Your task to perform on an android device: toggle translation in the chrome app Image 0: 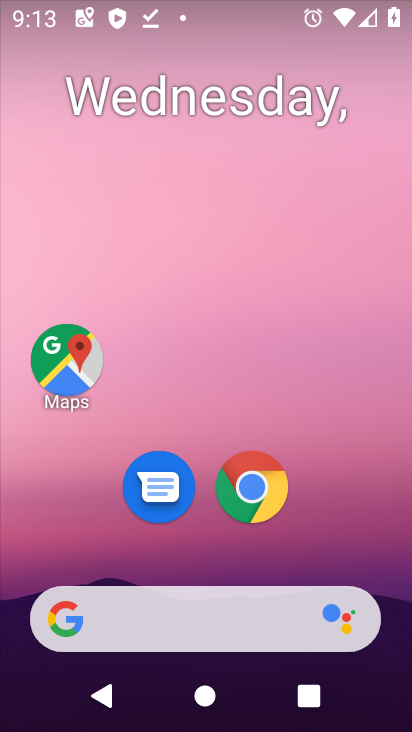
Step 0: drag from (218, 578) to (178, 298)
Your task to perform on an android device: toggle translation in the chrome app Image 1: 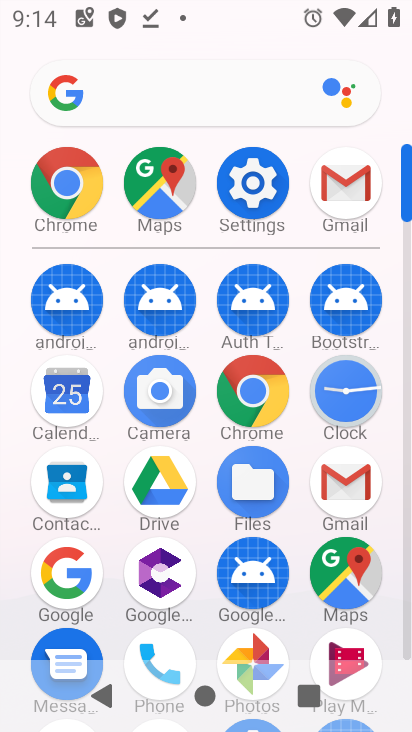
Step 1: click (78, 166)
Your task to perform on an android device: toggle translation in the chrome app Image 2: 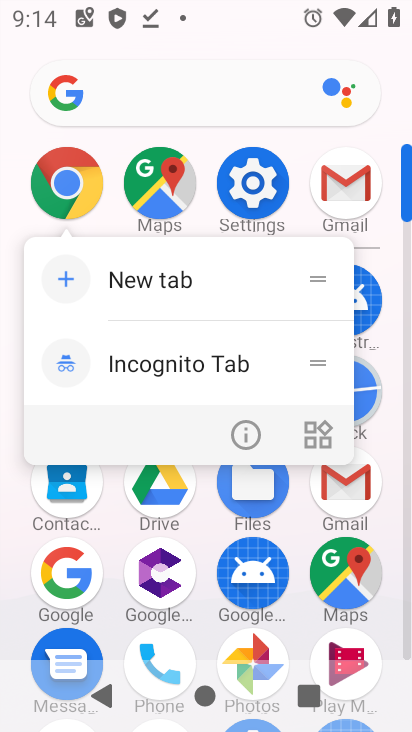
Step 2: click (53, 157)
Your task to perform on an android device: toggle translation in the chrome app Image 3: 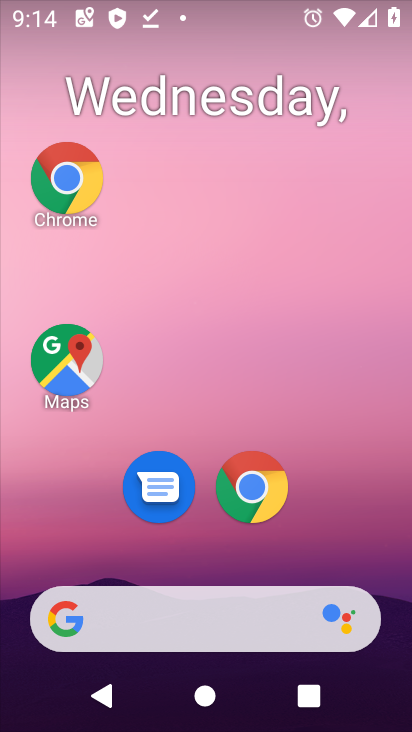
Step 3: click (251, 493)
Your task to perform on an android device: toggle translation in the chrome app Image 4: 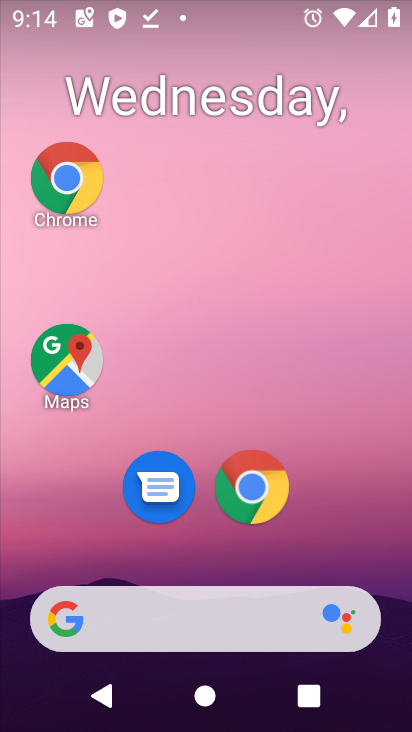
Step 4: click (256, 492)
Your task to perform on an android device: toggle translation in the chrome app Image 5: 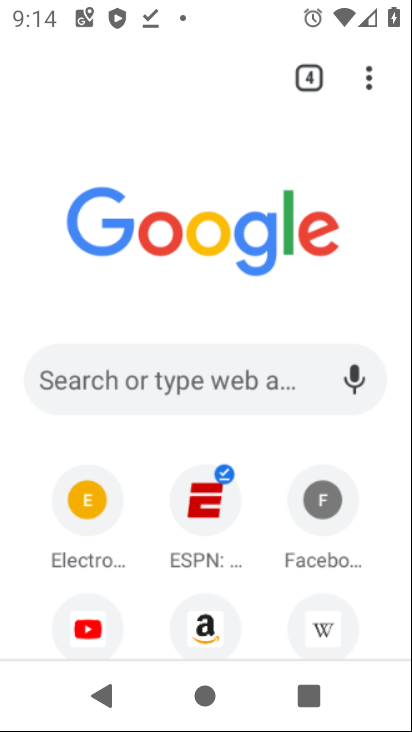
Step 5: click (264, 473)
Your task to perform on an android device: toggle translation in the chrome app Image 6: 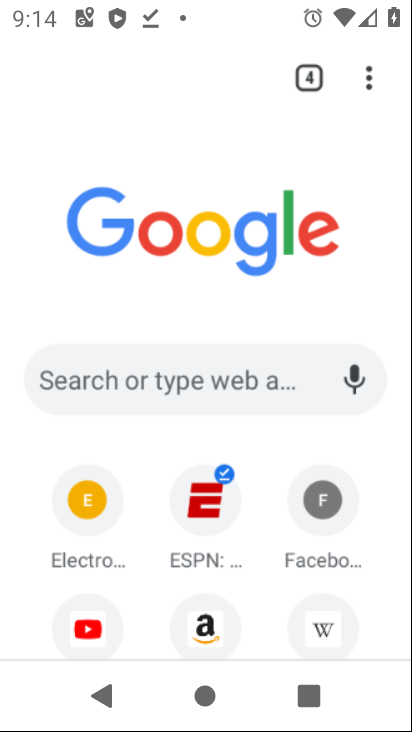
Step 6: click (264, 473)
Your task to perform on an android device: toggle translation in the chrome app Image 7: 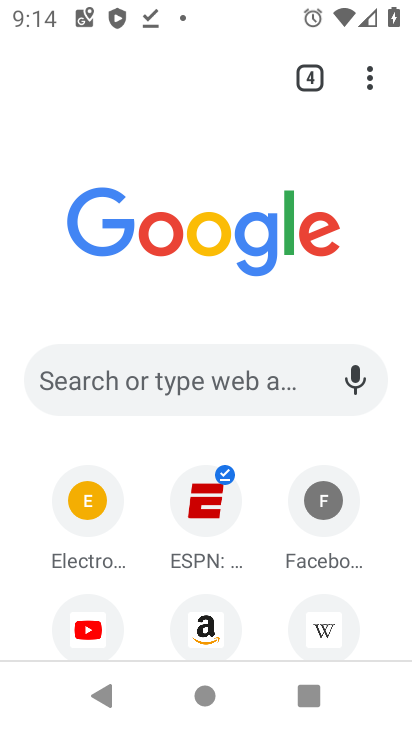
Step 7: drag from (367, 78) to (87, 542)
Your task to perform on an android device: toggle translation in the chrome app Image 8: 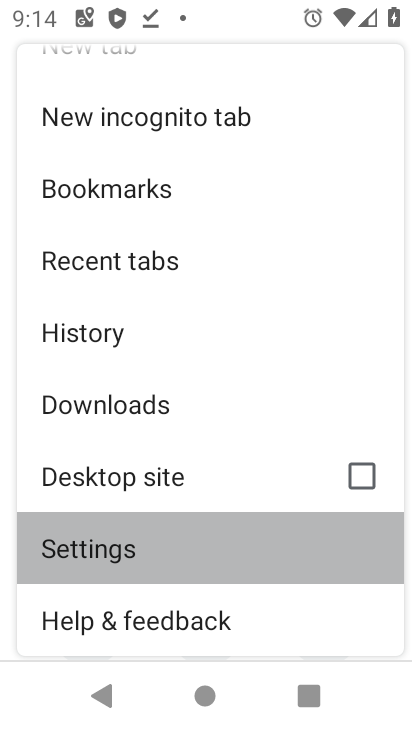
Step 8: click (87, 541)
Your task to perform on an android device: toggle translation in the chrome app Image 9: 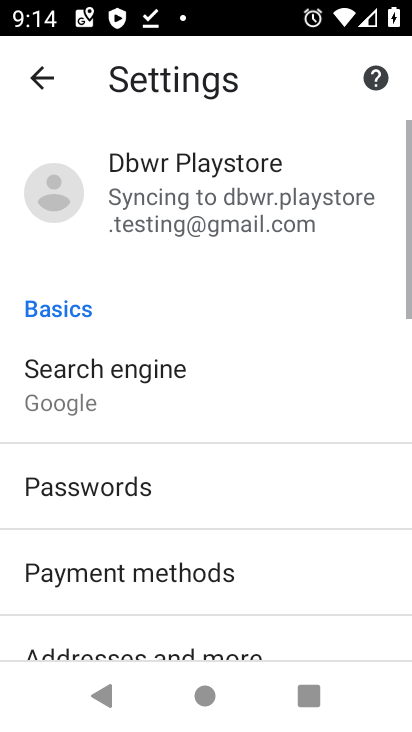
Step 9: drag from (191, 501) to (163, 183)
Your task to perform on an android device: toggle translation in the chrome app Image 10: 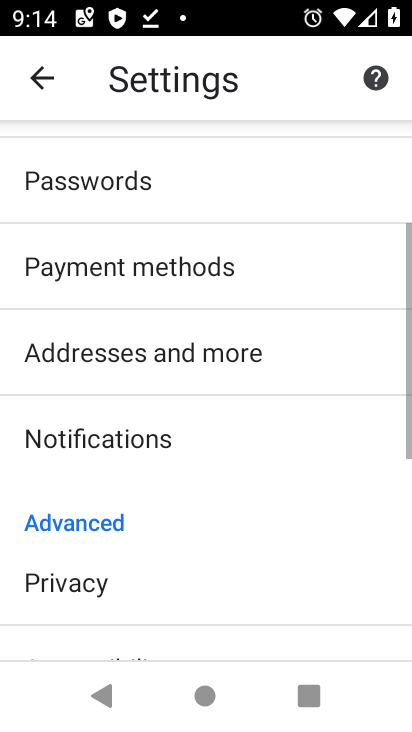
Step 10: drag from (244, 509) to (161, 104)
Your task to perform on an android device: toggle translation in the chrome app Image 11: 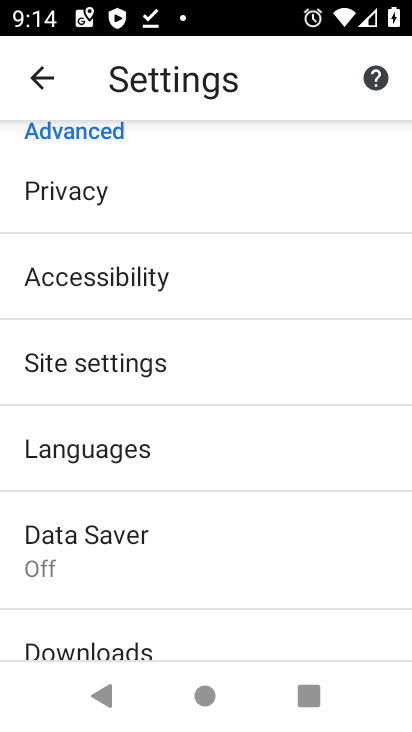
Step 11: click (69, 446)
Your task to perform on an android device: toggle translation in the chrome app Image 12: 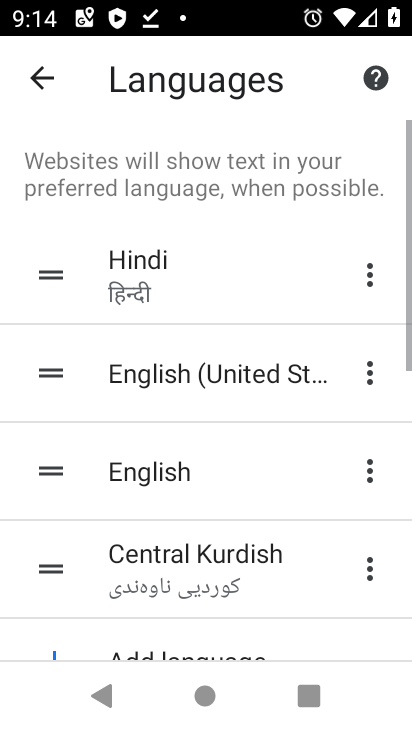
Step 12: drag from (254, 553) to (236, 284)
Your task to perform on an android device: toggle translation in the chrome app Image 13: 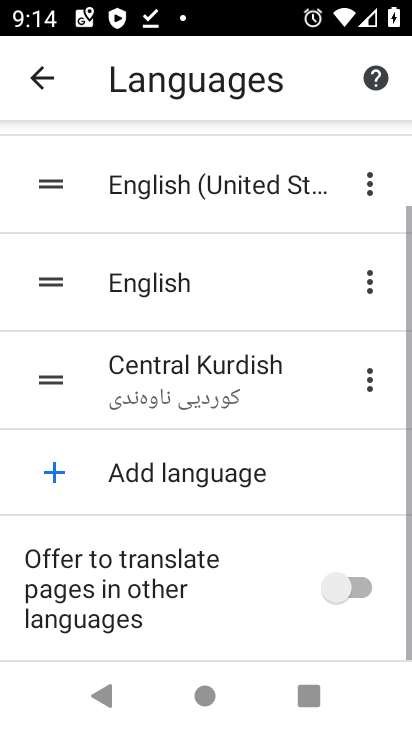
Step 13: drag from (275, 531) to (288, 145)
Your task to perform on an android device: toggle translation in the chrome app Image 14: 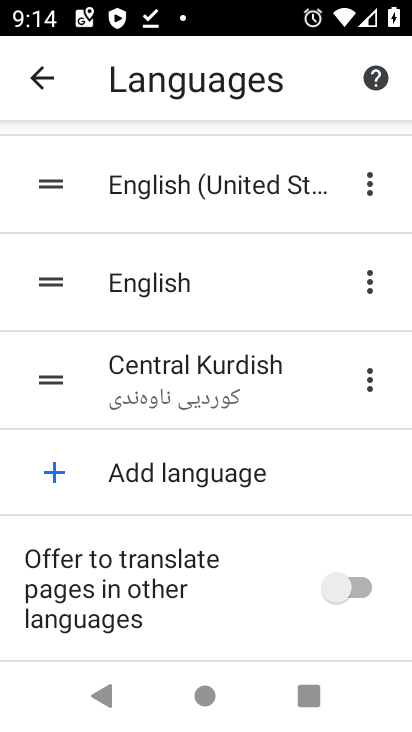
Step 14: click (337, 579)
Your task to perform on an android device: toggle translation in the chrome app Image 15: 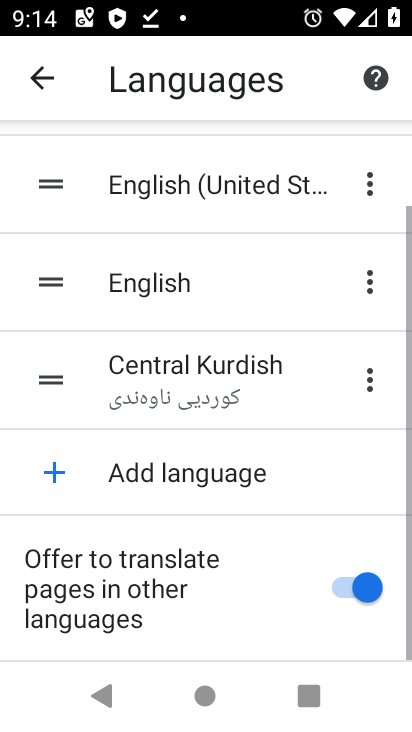
Step 15: task complete